Your task to perform on an android device: Search for vegetarian restaurants on Maps Image 0: 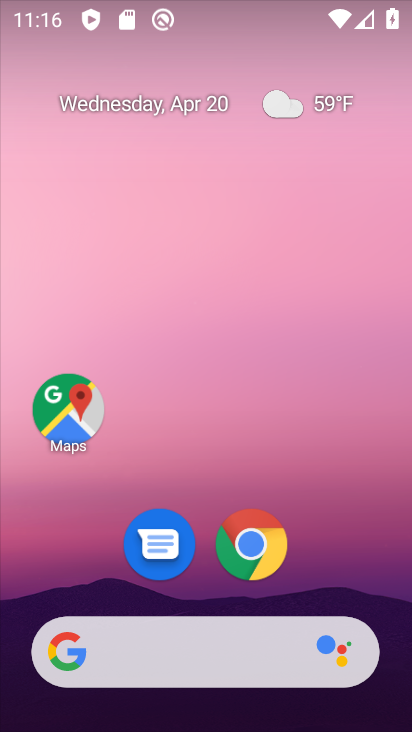
Step 0: click (67, 407)
Your task to perform on an android device: Search for vegetarian restaurants on Maps Image 1: 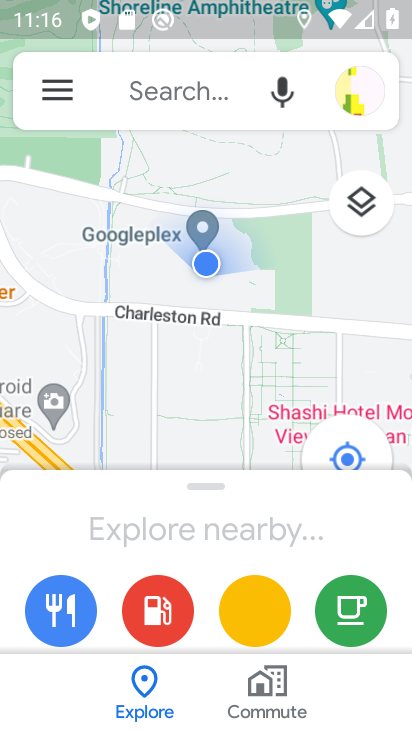
Step 1: click (212, 90)
Your task to perform on an android device: Search for vegetarian restaurants on Maps Image 2: 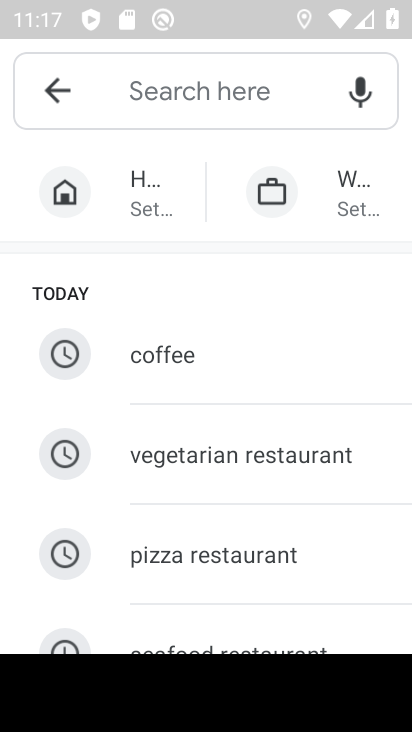
Step 2: type "vegetarian restaurants"
Your task to perform on an android device: Search for vegetarian restaurants on Maps Image 3: 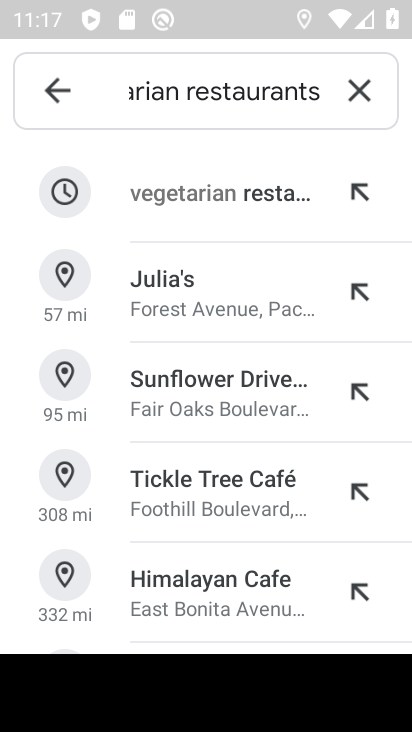
Step 3: task complete